Your task to perform on an android device: Go to Reddit.com Image 0: 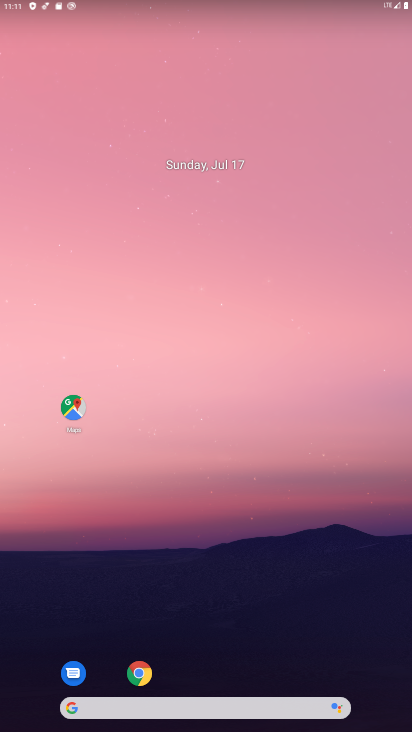
Step 0: click (247, 700)
Your task to perform on an android device: Go to Reddit.com Image 1: 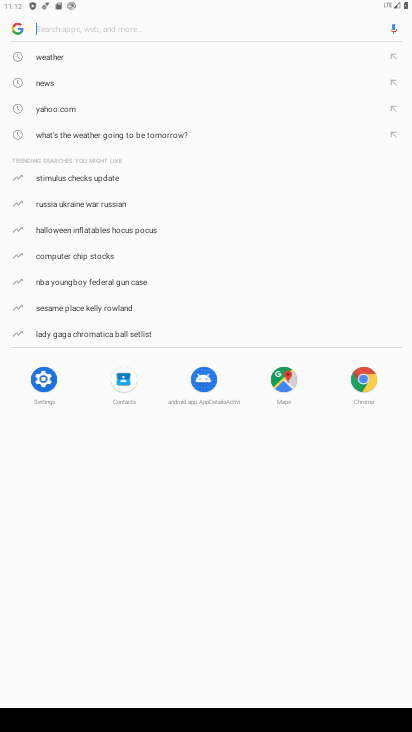
Step 1: type "reddit.com"
Your task to perform on an android device: Go to Reddit.com Image 2: 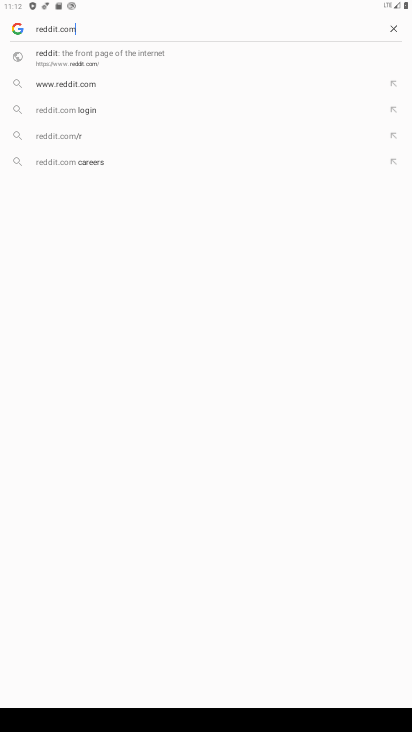
Step 2: click (75, 56)
Your task to perform on an android device: Go to Reddit.com Image 3: 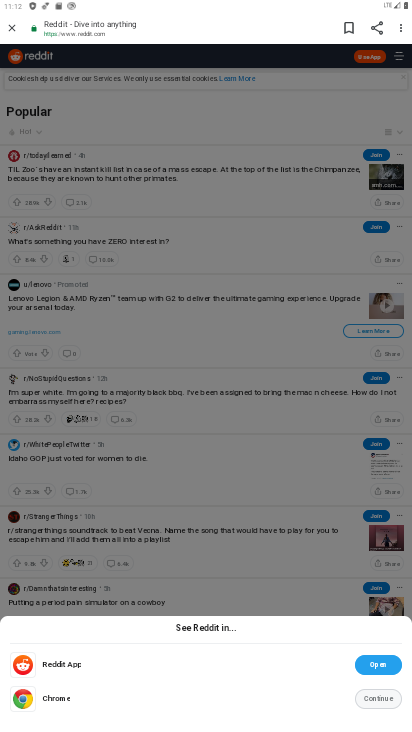
Step 3: click (391, 663)
Your task to perform on an android device: Go to Reddit.com Image 4: 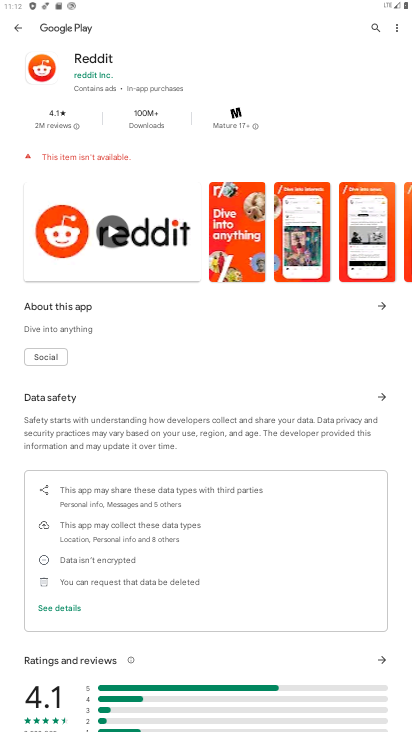
Step 4: task complete